Your task to perform on an android device: turn smart compose on in the gmail app Image 0: 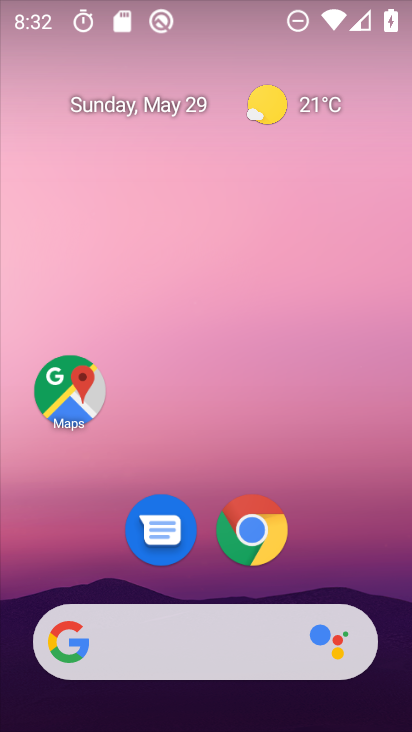
Step 0: drag from (171, 677) to (184, 164)
Your task to perform on an android device: turn smart compose on in the gmail app Image 1: 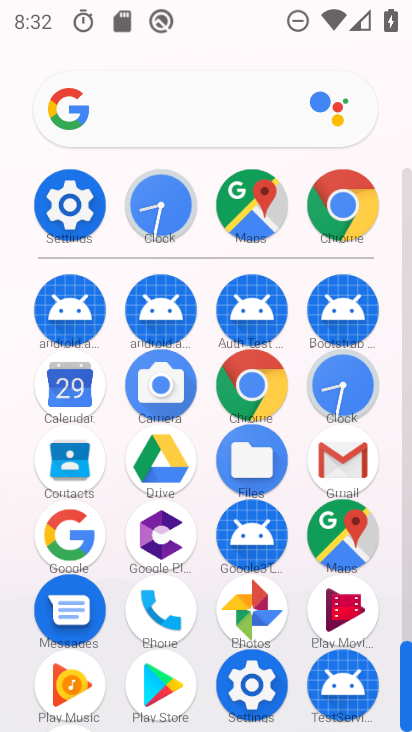
Step 1: click (328, 462)
Your task to perform on an android device: turn smart compose on in the gmail app Image 2: 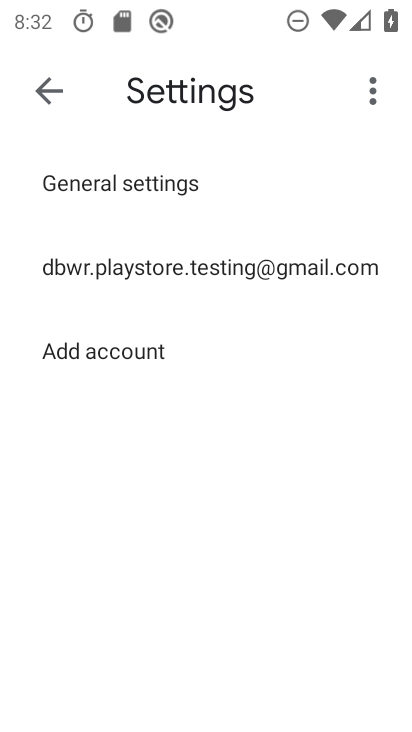
Step 2: click (172, 254)
Your task to perform on an android device: turn smart compose on in the gmail app Image 3: 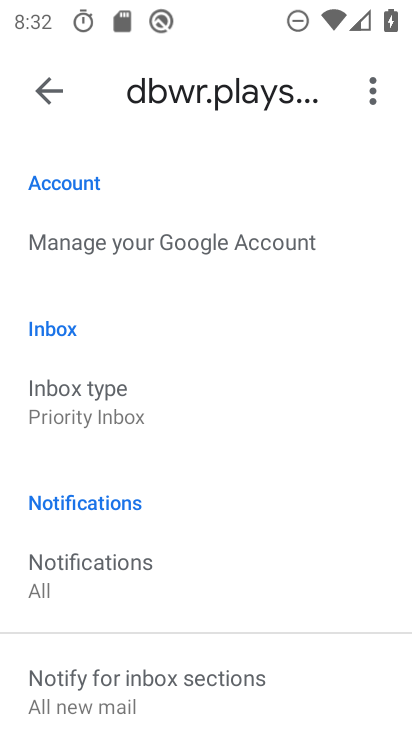
Step 3: drag from (157, 554) to (154, 322)
Your task to perform on an android device: turn smart compose on in the gmail app Image 4: 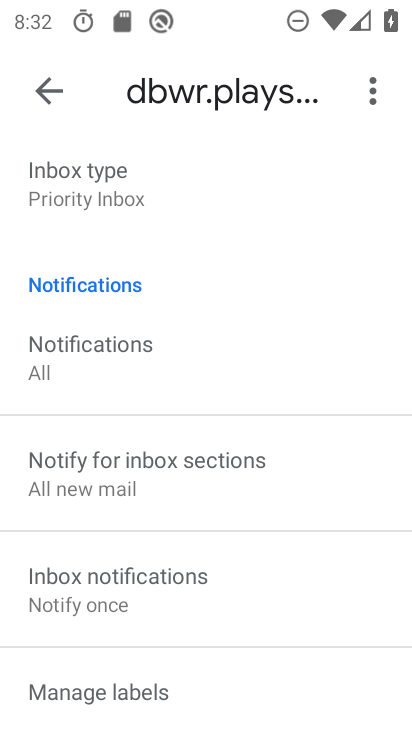
Step 4: drag from (199, 594) to (188, 298)
Your task to perform on an android device: turn smart compose on in the gmail app Image 5: 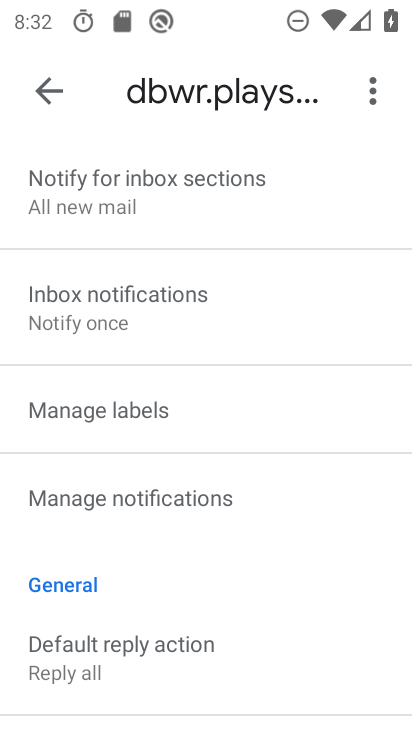
Step 5: drag from (218, 568) to (185, 220)
Your task to perform on an android device: turn smart compose on in the gmail app Image 6: 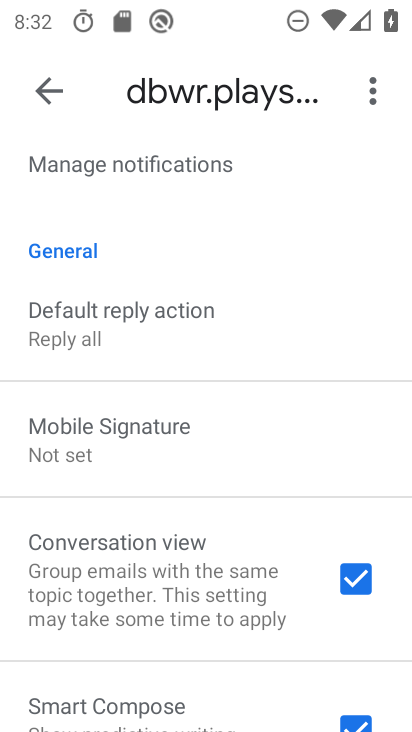
Step 6: drag from (195, 540) to (166, 248)
Your task to perform on an android device: turn smart compose on in the gmail app Image 7: 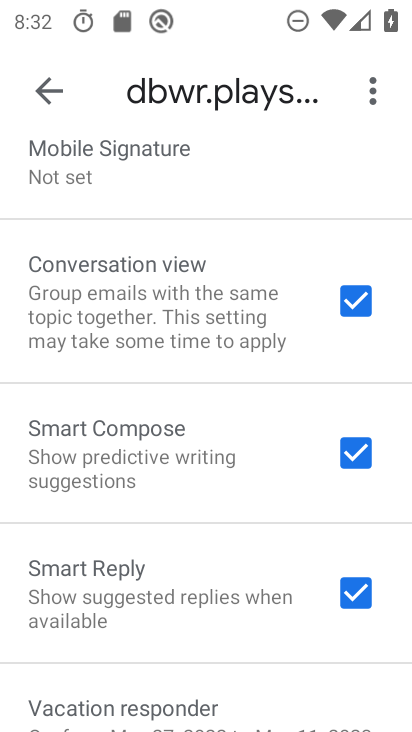
Step 7: drag from (164, 554) to (155, 305)
Your task to perform on an android device: turn smart compose on in the gmail app Image 8: 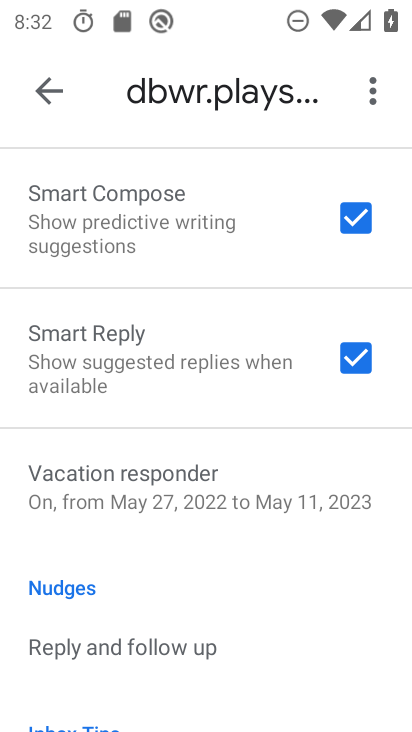
Step 8: click (334, 226)
Your task to perform on an android device: turn smart compose on in the gmail app Image 9: 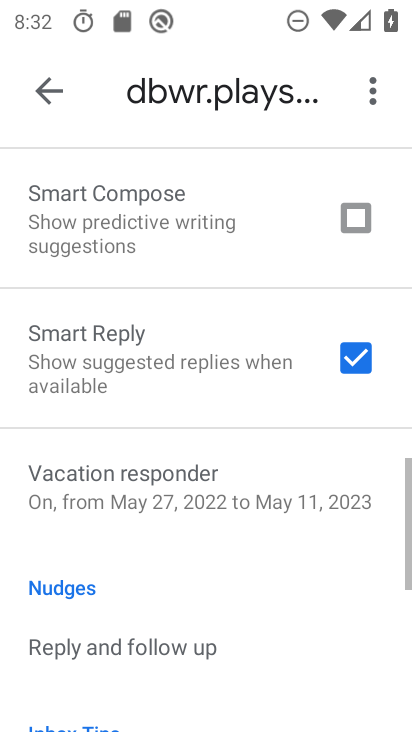
Step 9: click (333, 226)
Your task to perform on an android device: turn smart compose on in the gmail app Image 10: 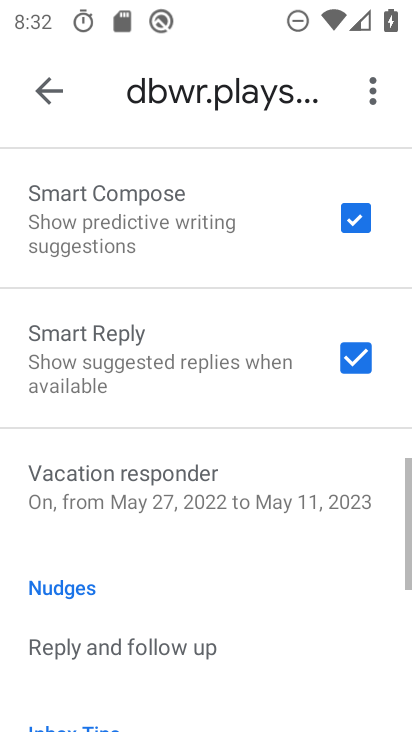
Step 10: task complete